Your task to perform on an android device: Empty the shopping cart on costco. Add "macbook" to the cart on costco, then select checkout. Image 0: 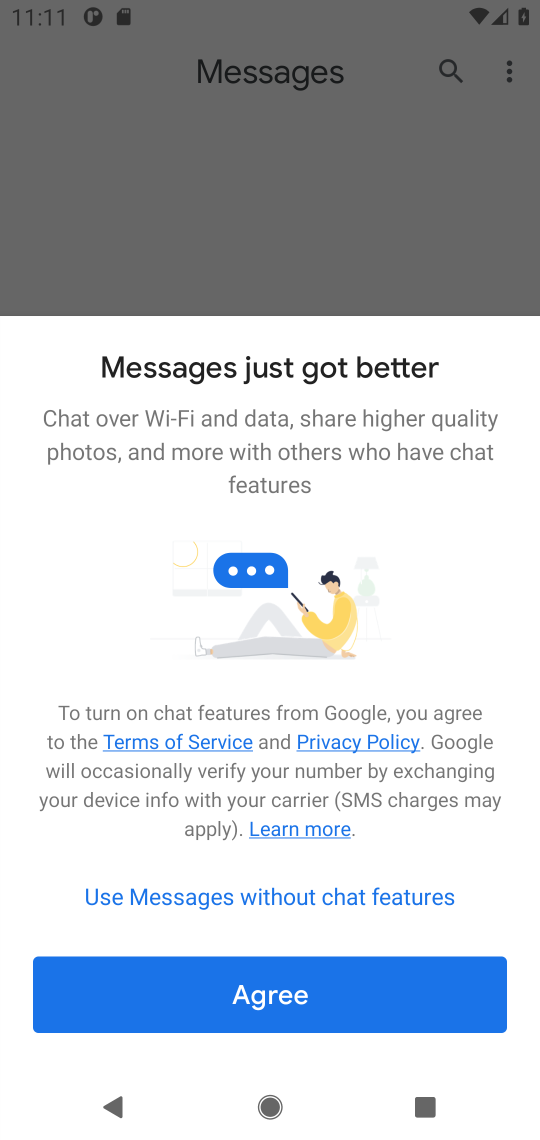
Step 0: press home button
Your task to perform on an android device: Empty the shopping cart on costco. Add "macbook" to the cart on costco, then select checkout. Image 1: 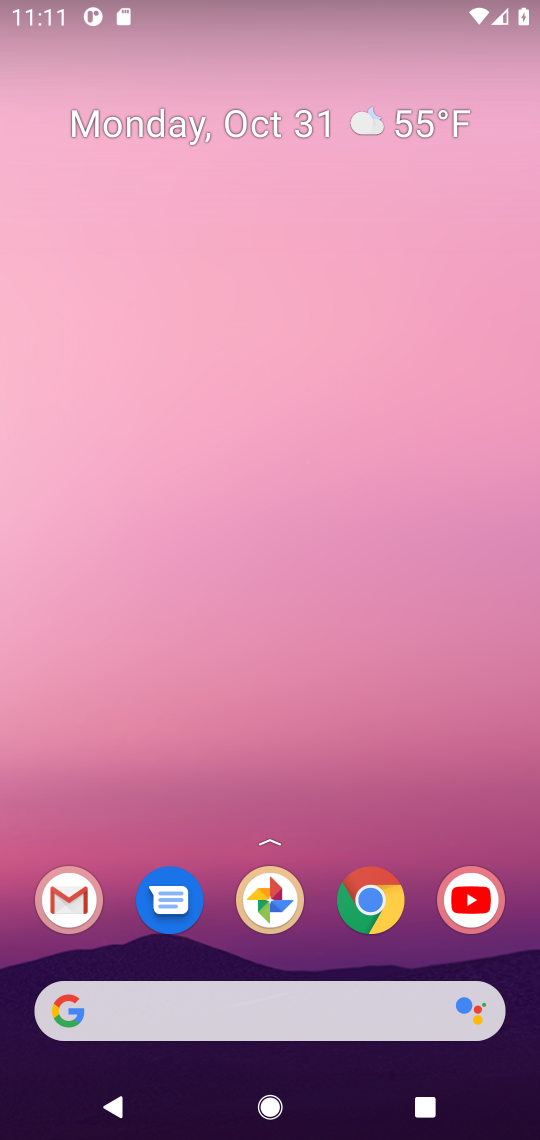
Step 1: click (379, 922)
Your task to perform on an android device: Empty the shopping cart on costco. Add "macbook" to the cart on costco, then select checkout. Image 2: 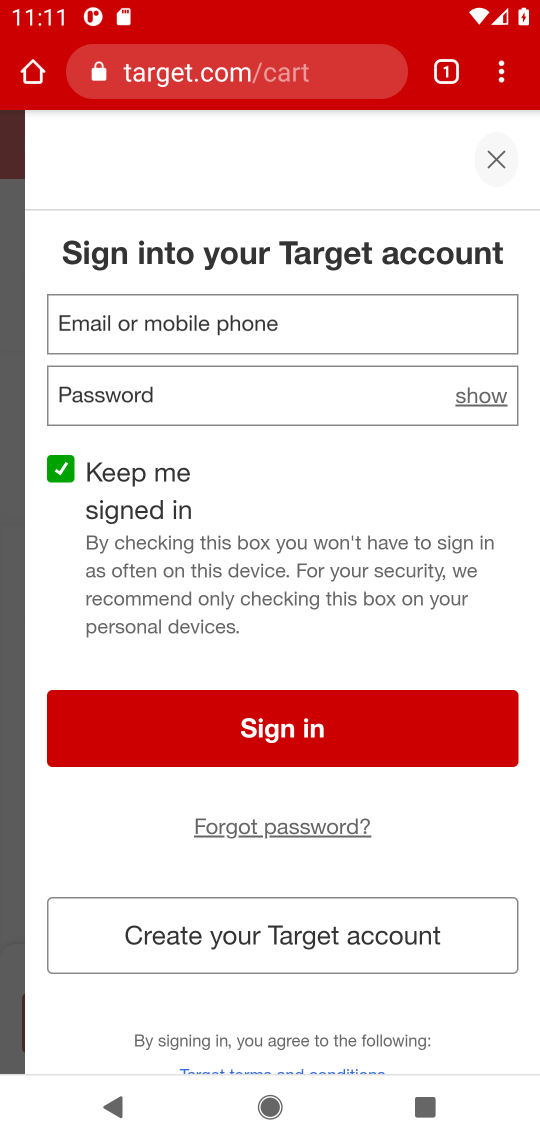
Step 2: drag from (211, 137) to (216, 82)
Your task to perform on an android device: Empty the shopping cart on costco. Add "macbook" to the cart on costco, then select checkout. Image 3: 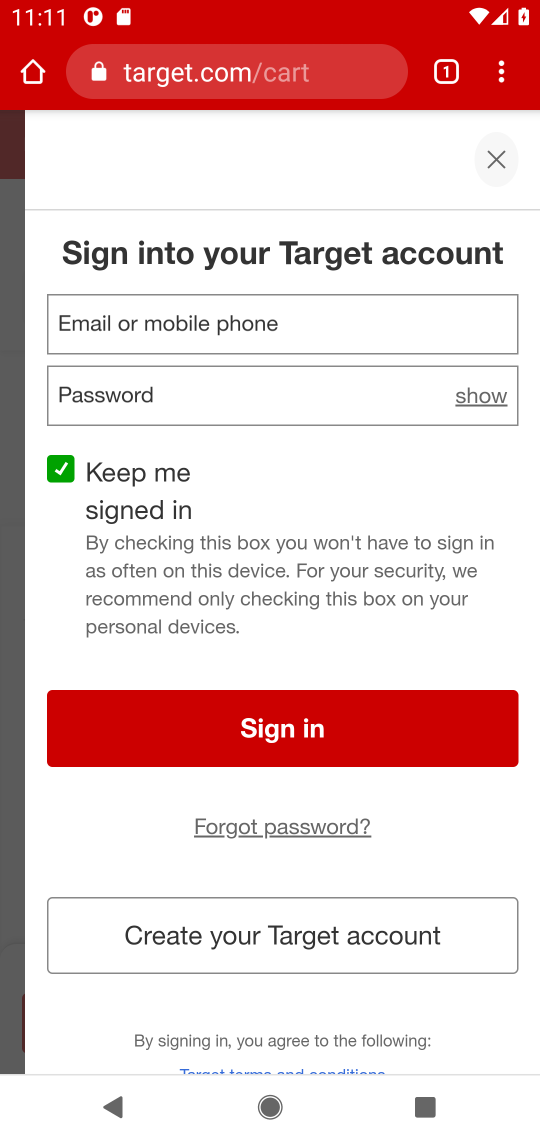
Step 3: click (217, 75)
Your task to perform on an android device: Empty the shopping cart on costco. Add "macbook" to the cart on costco, then select checkout. Image 4: 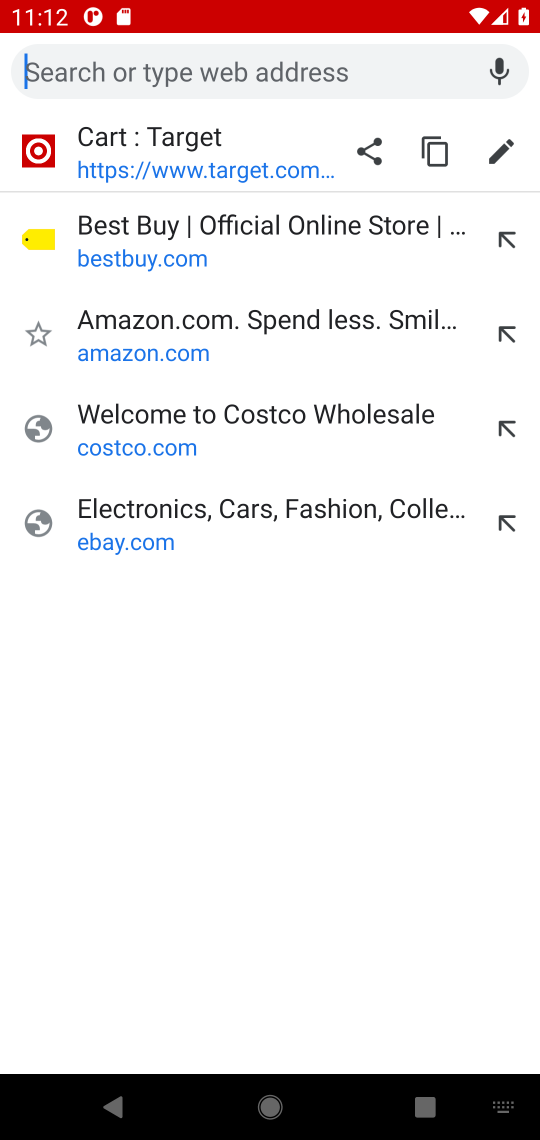
Step 4: type "costco.com"
Your task to perform on an android device: Empty the shopping cart on costco. Add "macbook" to the cart on costco, then select checkout. Image 5: 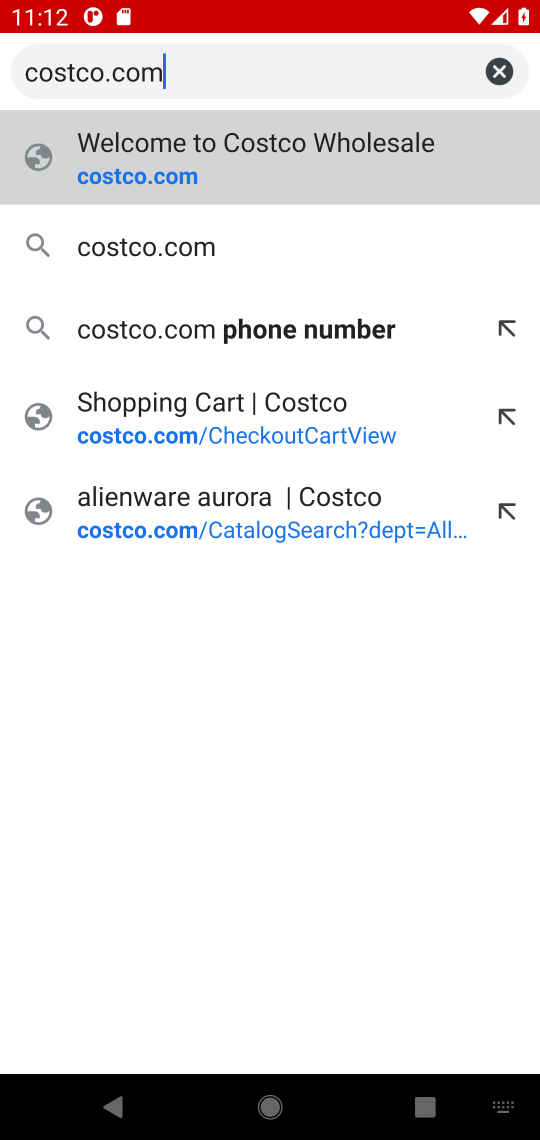
Step 5: click (140, 192)
Your task to perform on an android device: Empty the shopping cart on costco. Add "macbook" to the cart on costco, then select checkout. Image 6: 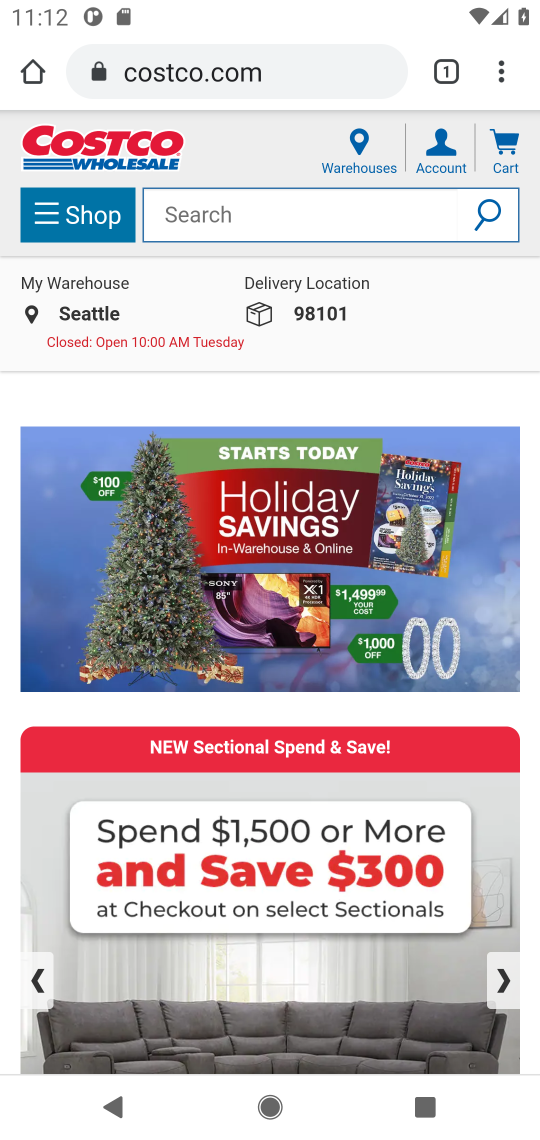
Step 6: click (247, 208)
Your task to perform on an android device: Empty the shopping cart on costco. Add "macbook" to the cart on costco, then select checkout. Image 7: 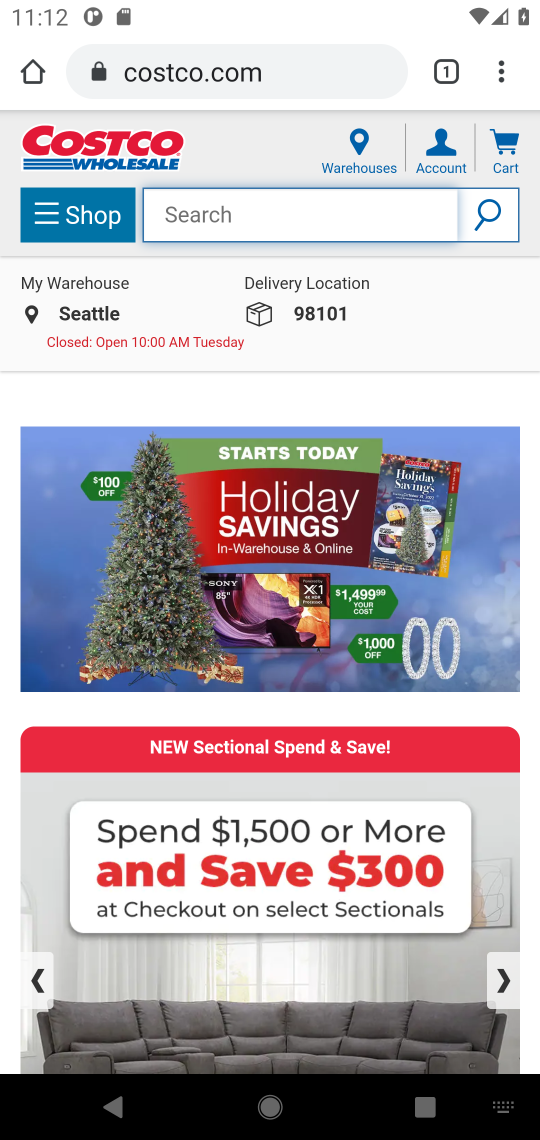
Step 7: type "macbook"
Your task to perform on an android device: Empty the shopping cart on costco. Add "macbook" to the cart on costco, then select checkout. Image 8: 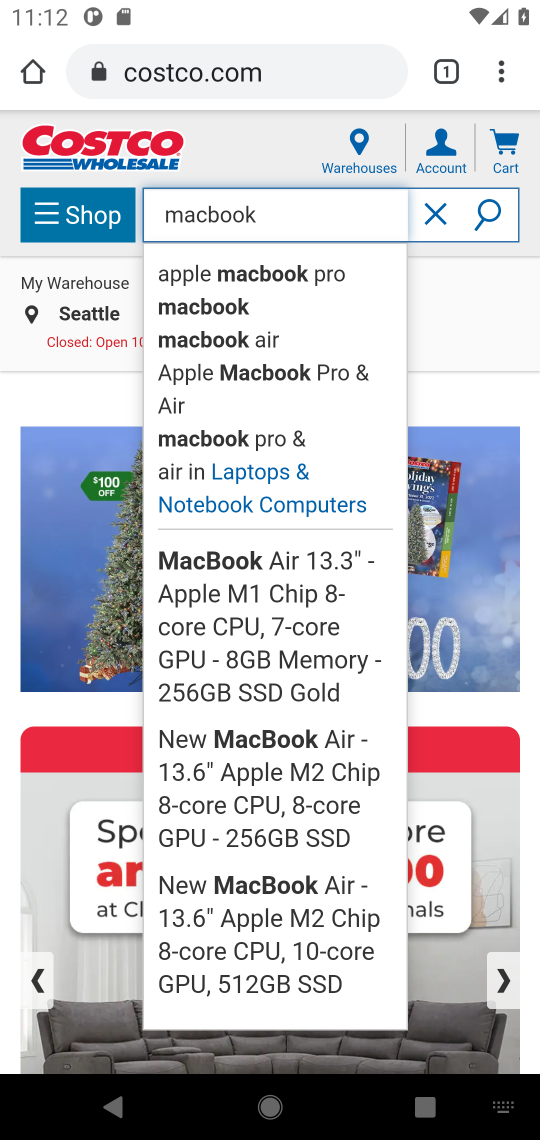
Step 8: click (491, 212)
Your task to perform on an android device: Empty the shopping cart on costco. Add "macbook" to the cart on costco, then select checkout. Image 9: 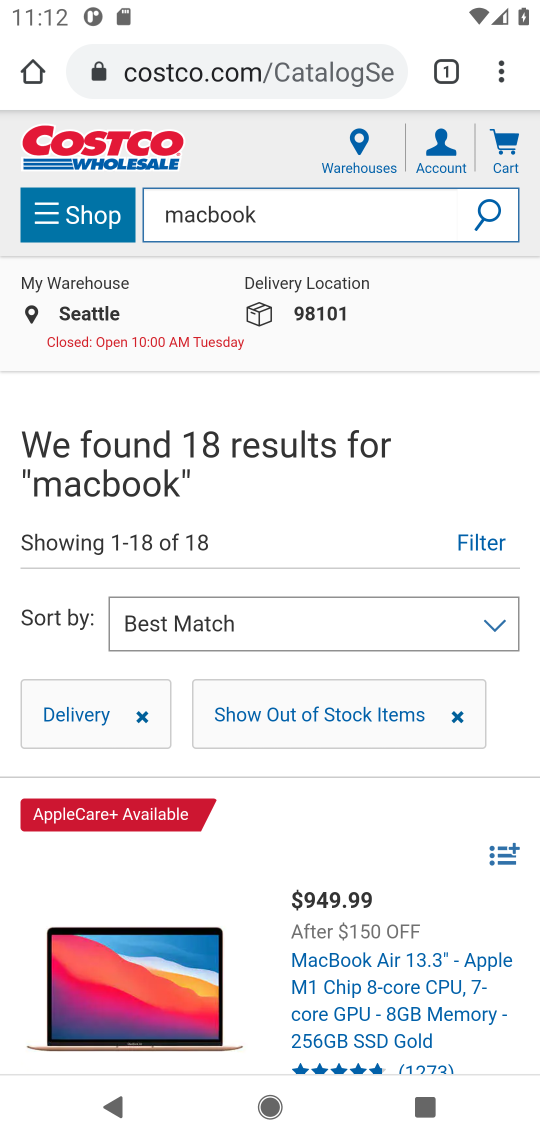
Step 9: drag from (265, 1000) to (249, 692)
Your task to perform on an android device: Empty the shopping cart on costco. Add "macbook" to the cart on costco, then select checkout. Image 10: 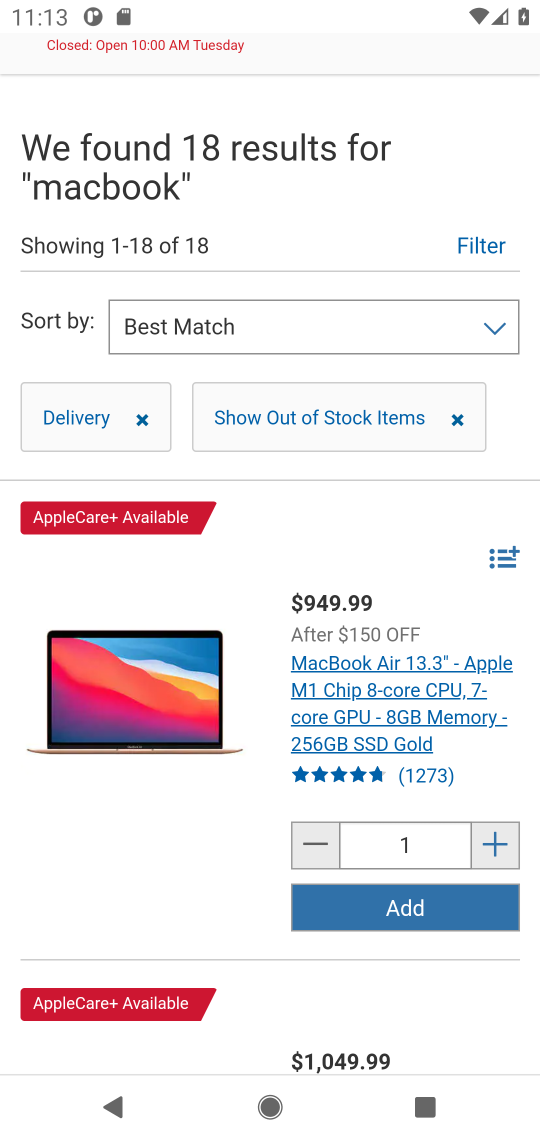
Step 10: click (410, 916)
Your task to perform on an android device: Empty the shopping cart on costco. Add "macbook" to the cart on costco, then select checkout. Image 11: 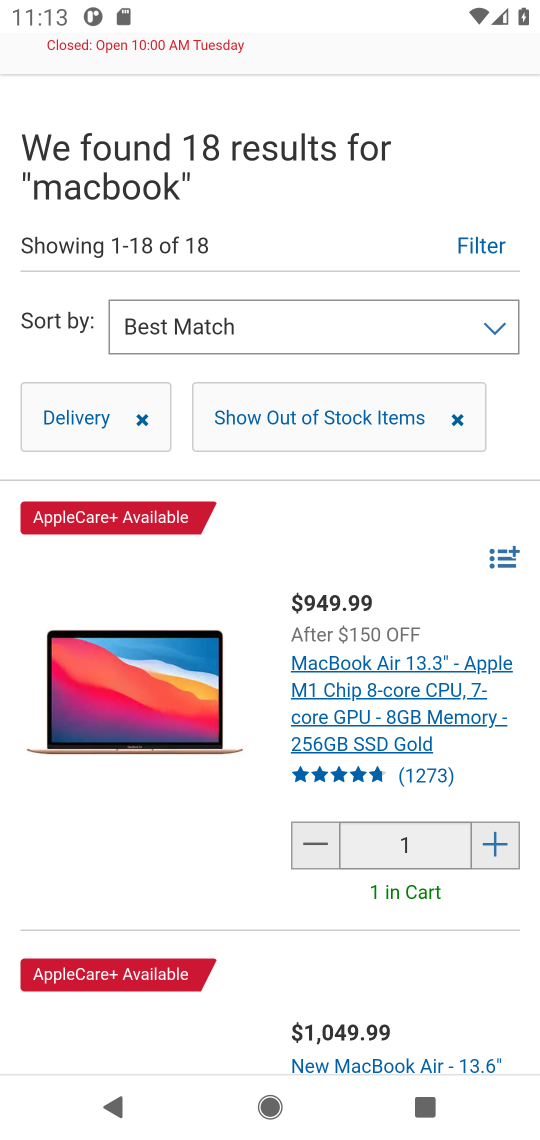
Step 11: drag from (234, 642) to (211, 893)
Your task to perform on an android device: Empty the shopping cart on costco. Add "macbook" to the cart on costco, then select checkout. Image 12: 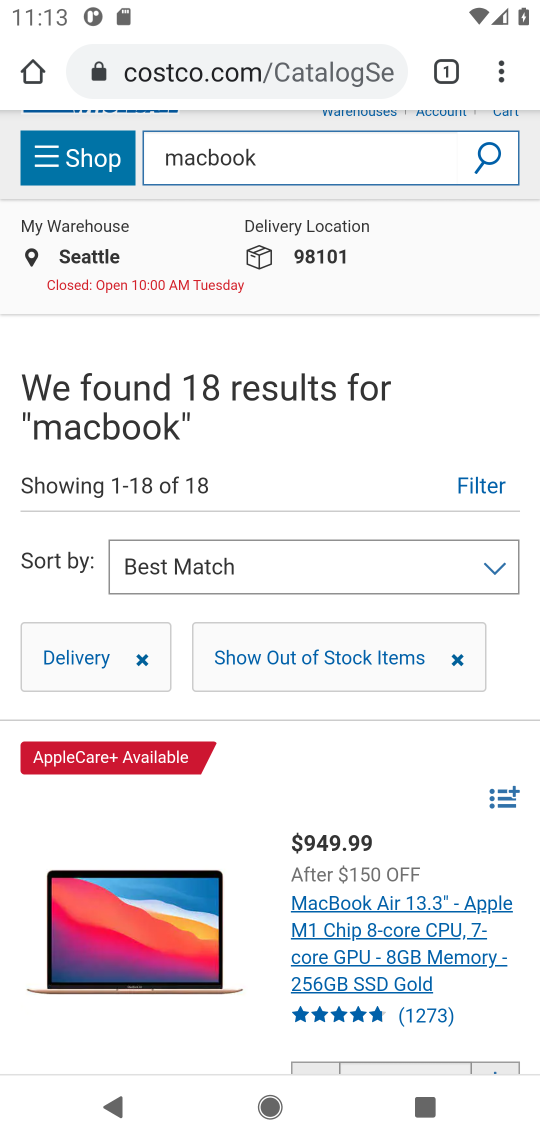
Step 12: drag from (309, 462) to (309, 732)
Your task to perform on an android device: Empty the shopping cart on costco. Add "macbook" to the cart on costco, then select checkout. Image 13: 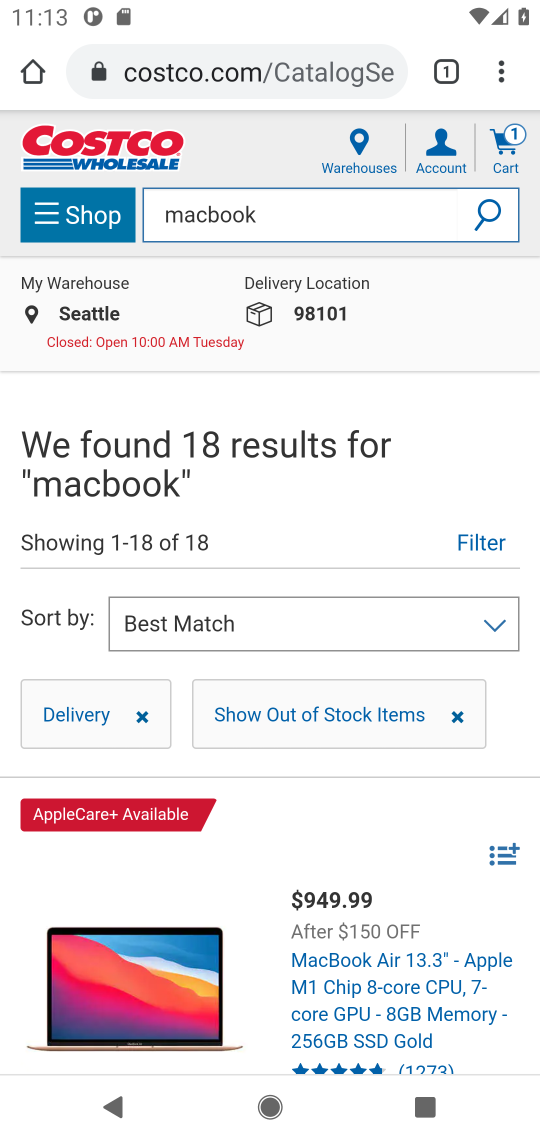
Step 13: click (510, 150)
Your task to perform on an android device: Empty the shopping cart on costco. Add "macbook" to the cart on costco, then select checkout. Image 14: 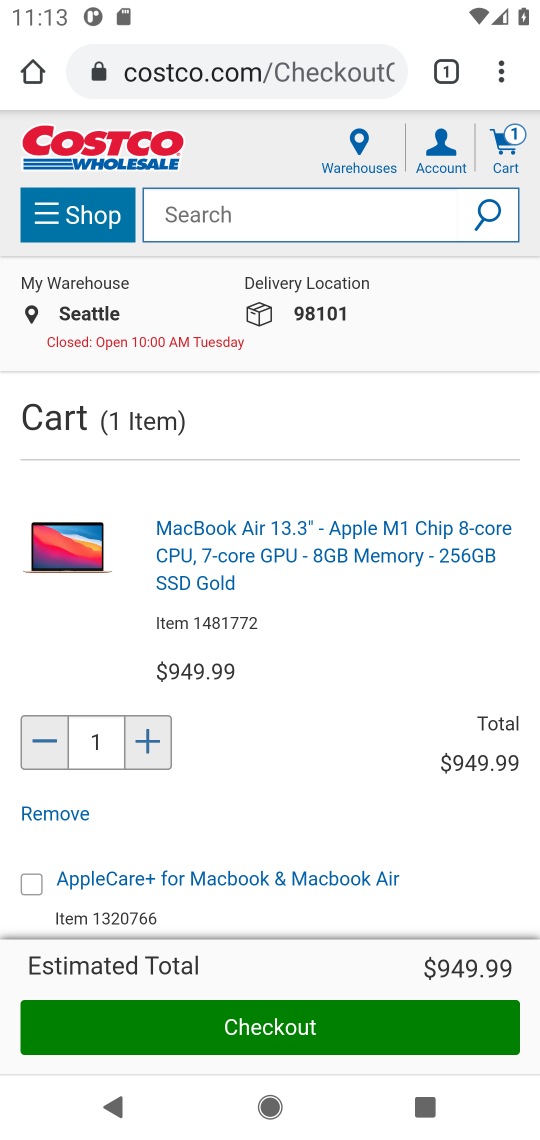
Step 14: click (246, 1038)
Your task to perform on an android device: Empty the shopping cart on costco. Add "macbook" to the cart on costco, then select checkout. Image 15: 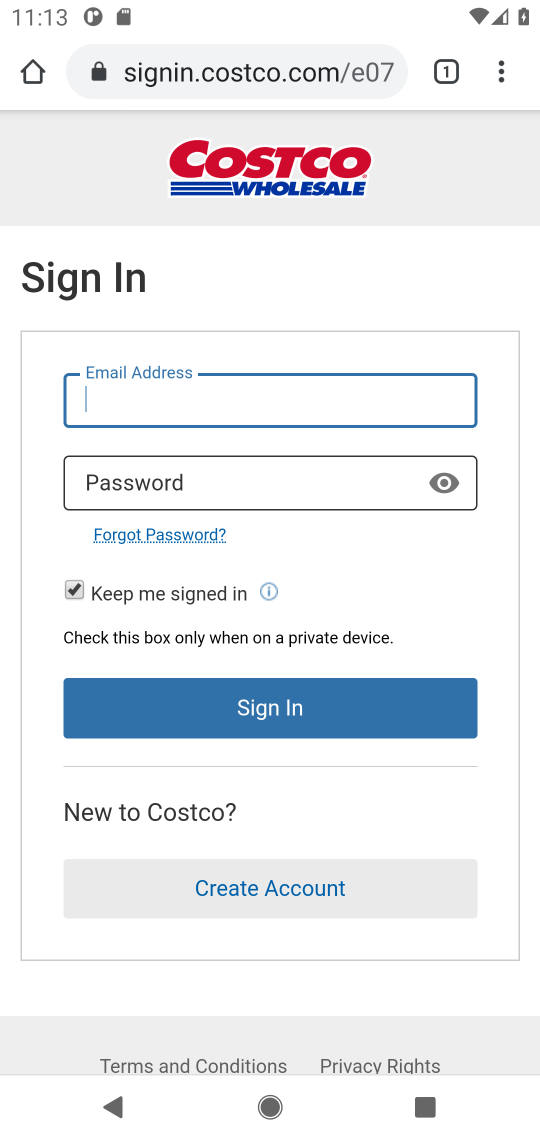
Step 15: task complete